Your task to perform on an android device: Open Wikipedia Image 0: 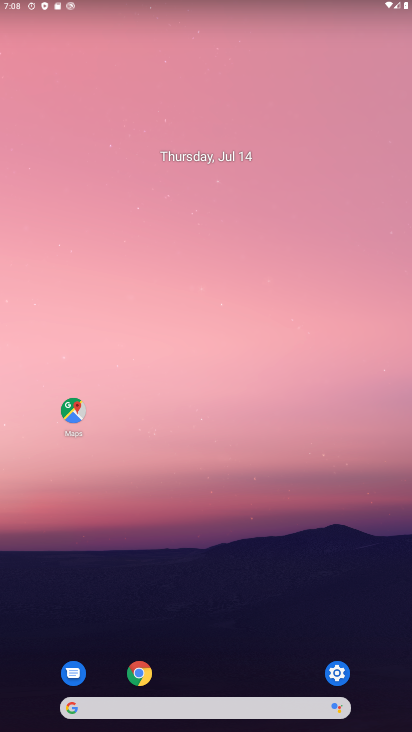
Step 0: click (139, 669)
Your task to perform on an android device: Open Wikipedia Image 1: 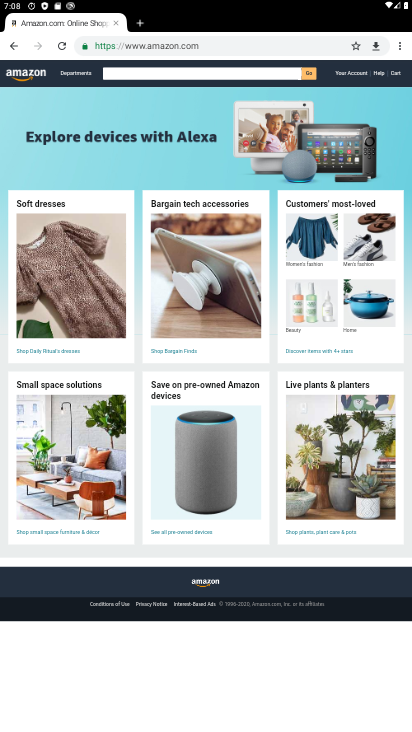
Step 1: click (401, 46)
Your task to perform on an android device: Open Wikipedia Image 2: 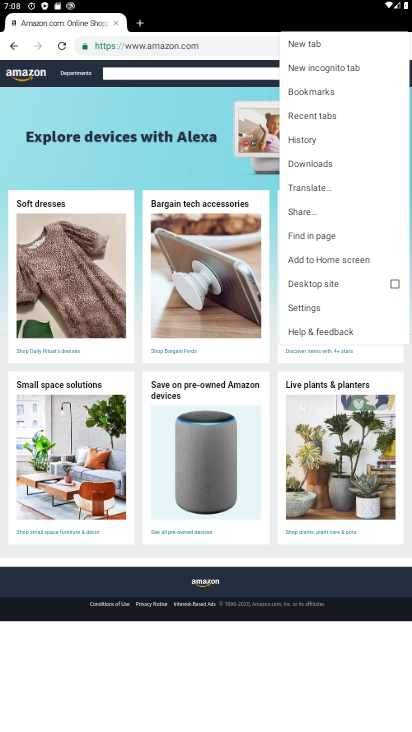
Step 2: click (314, 47)
Your task to perform on an android device: Open Wikipedia Image 3: 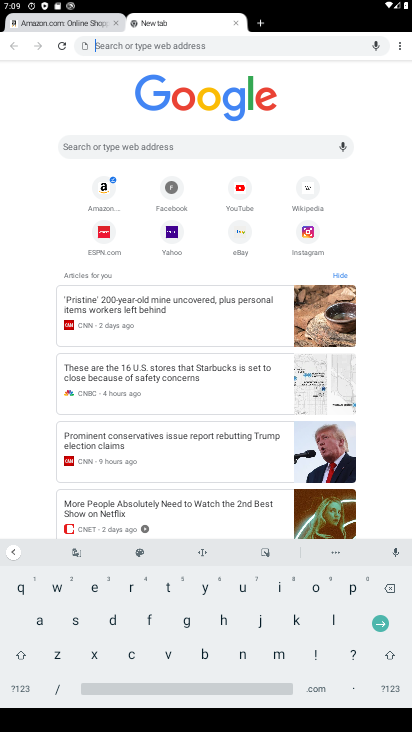
Step 3: click (310, 185)
Your task to perform on an android device: Open Wikipedia Image 4: 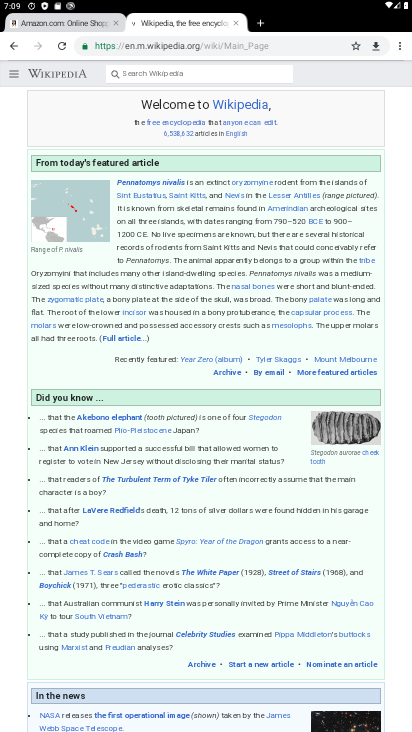
Step 4: task complete